Your task to perform on an android device: install app "Facebook" Image 0: 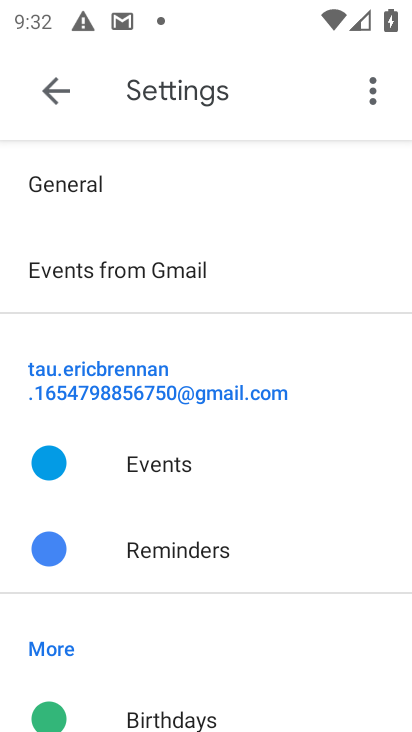
Step 0: press home button
Your task to perform on an android device: install app "Facebook" Image 1: 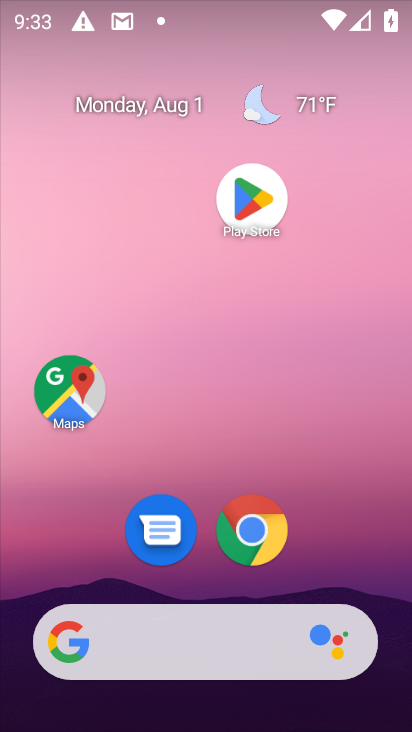
Step 1: click (248, 168)
Your task to perform on an android device: install app "Facebook" Image 2: 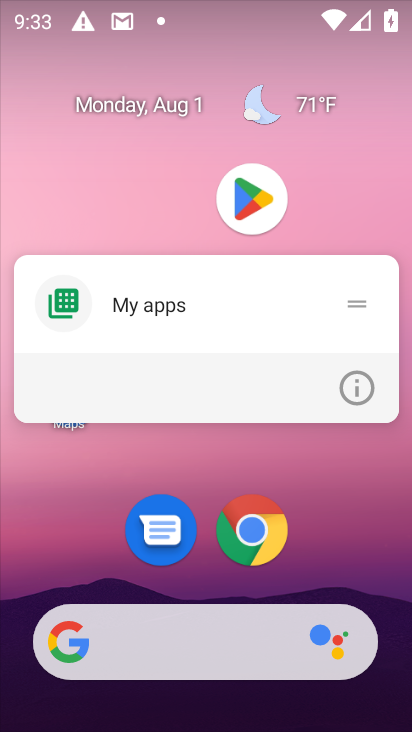
Step 2: click (248, 168)
Your task to perform on an android device: install app "Facebook" Image 3: 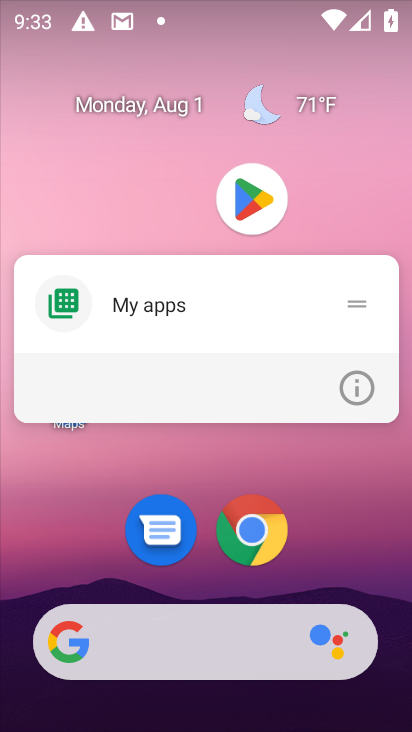
Step 3: click (248, 197)
Your task to perform on an android device: install app "Facebook" Image 4: 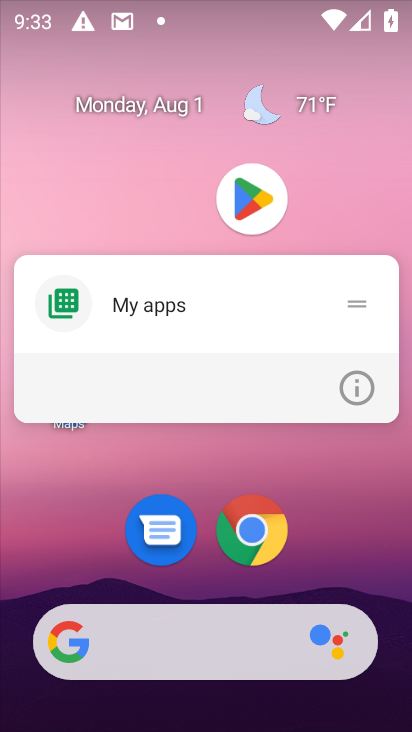
Step 4: click (265, 179)
Your task to perform on an android device: install app "Facebook" Image 5: 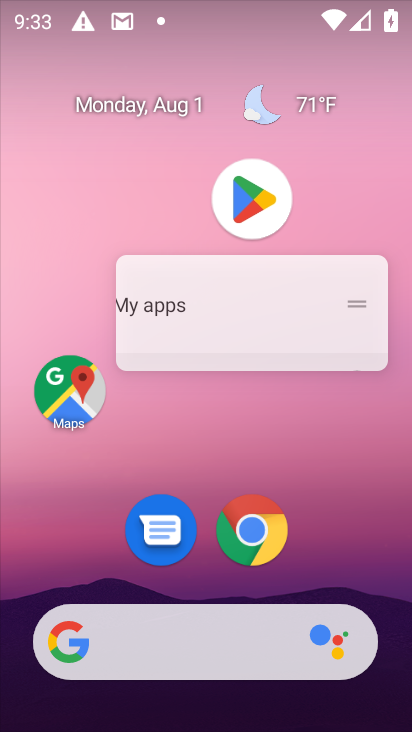
Step 5: click (265, 179)
Your task to perform on an android device: install app "Facebook" Image 6: 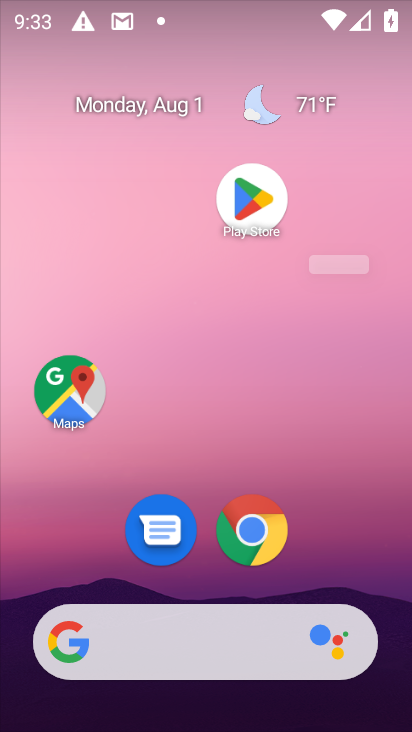
Step 6: click (265, 179)
Your task to perform on an android device: install app "Facebook" Image 7: 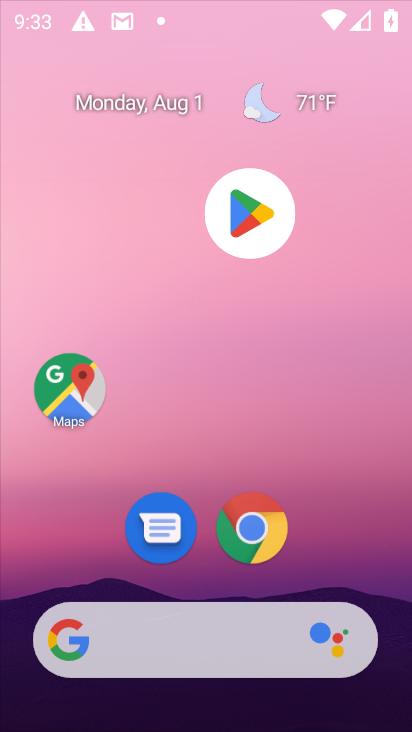
Step 7: click (231, 198)
Your task to perform on an android device: install app "Facebook" Image 8: 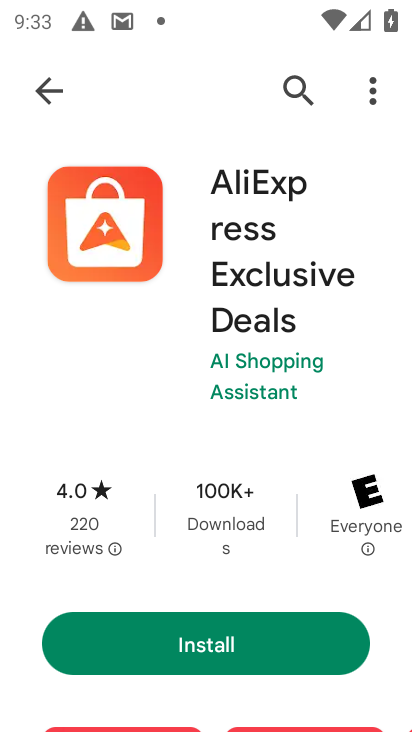
Step 8: click (299, 93)
Your task to perform on an android device: install app "Facebook" Image 9: 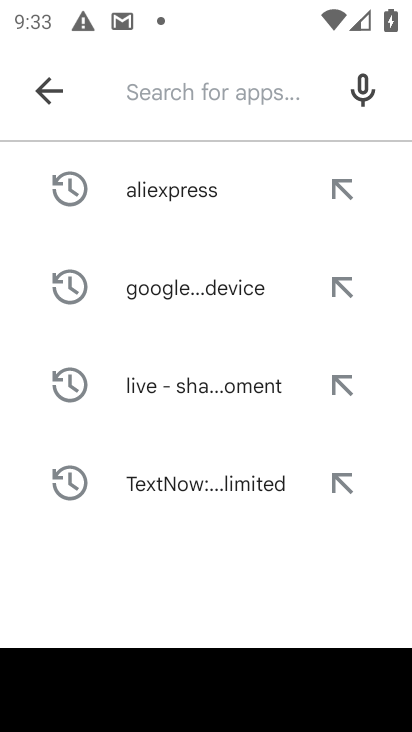
Step 9: click (235, 91)
Your task to perform on an android device: install app "Facebook" Image 10: 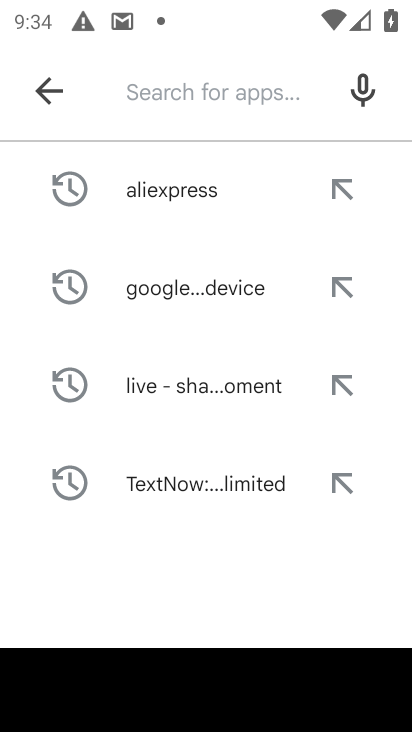
Step 10: type "Facebook"
Your task to perform on an android device: install app "Facebook" Image 11: 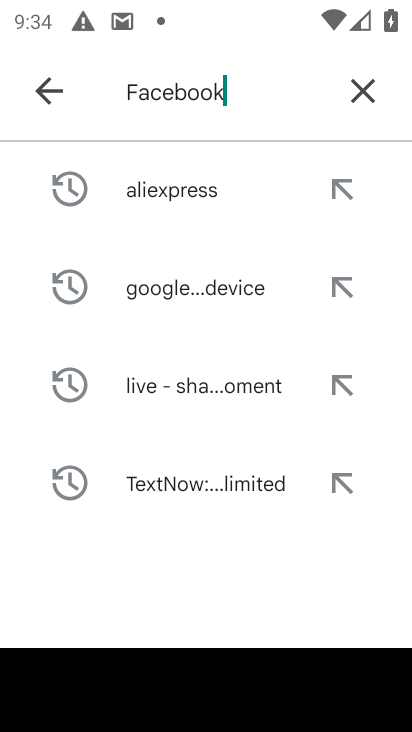
Step 11: press enter
Your task to perform on an android device: install app "Facebook" Image 12: 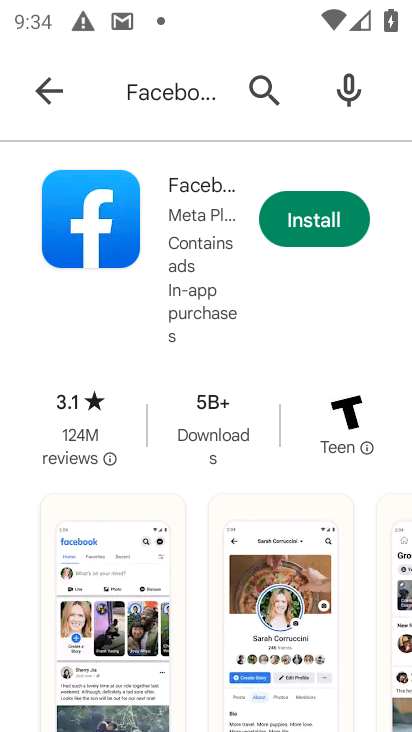
Step 12: click (311, 218)
Your task to perform on an android device: install app "Facebook" Image 13: 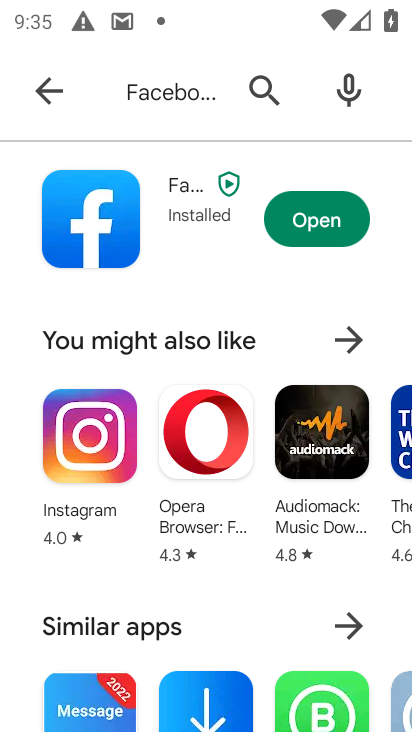
Step 13: task complete